Your task to perform on an android device: turn on airplane mode Image 0: 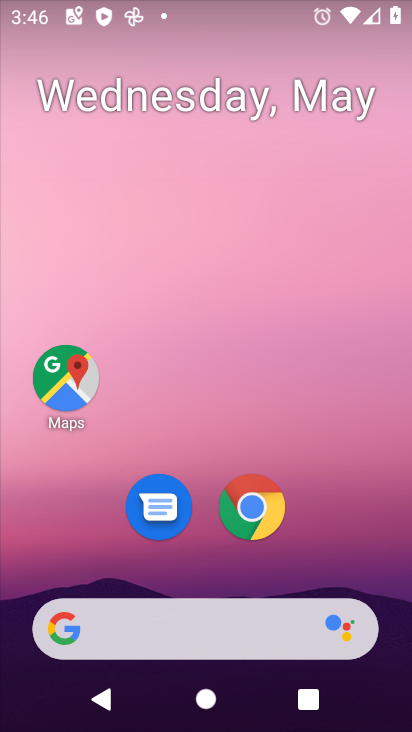
Step 0: drag from (319, 540) to (295, 183)
Your task to perform on an android device: turn on airplane mode Image 1: 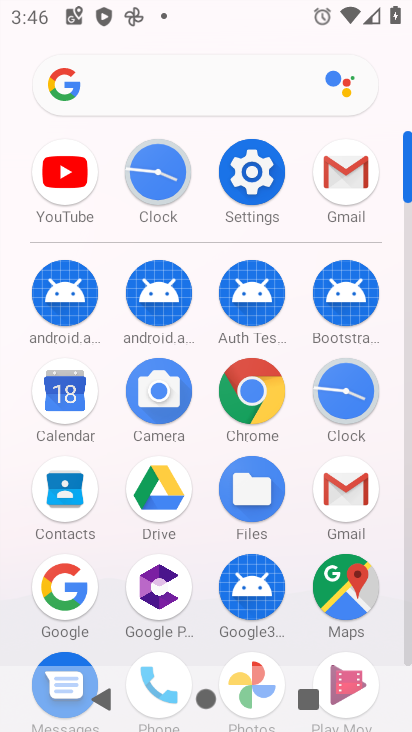
Step 1: click (275, 193)
Your task to perform on an android device: turn on airplane mode Image 2: 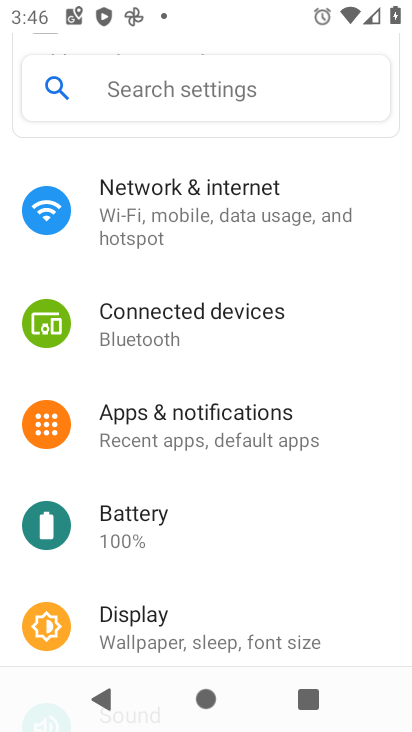
Step 2: click (241, 230)
Your task to perform on an android device: turn on airplane mode Image 3: 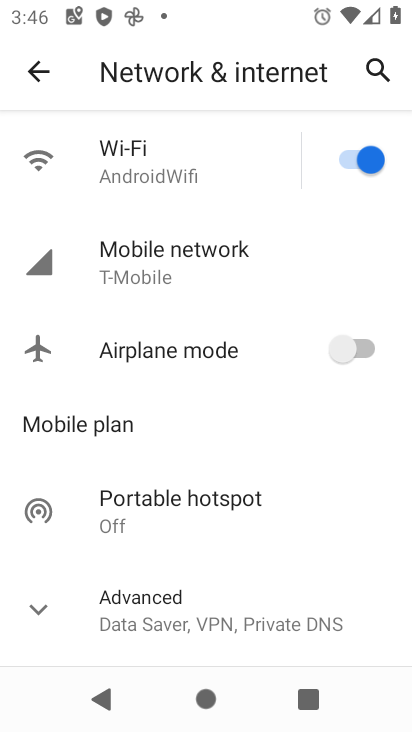
Step 3: click (337, 353)
Your task to perform on an android device: turn on airplane mode Image 4: 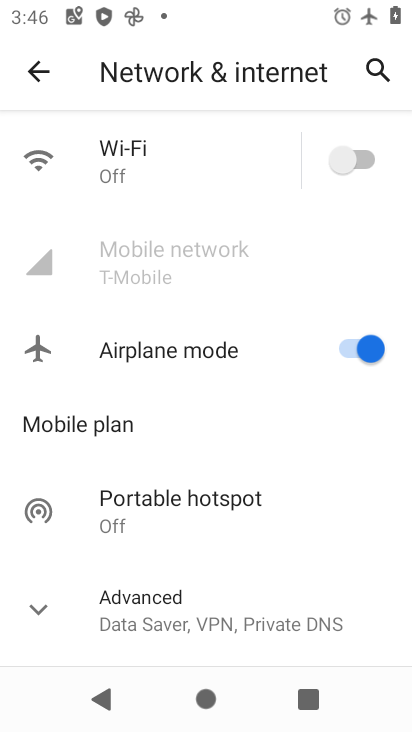
Step 4: task complete